Your task to perform on an android device: Open the map Image 0: 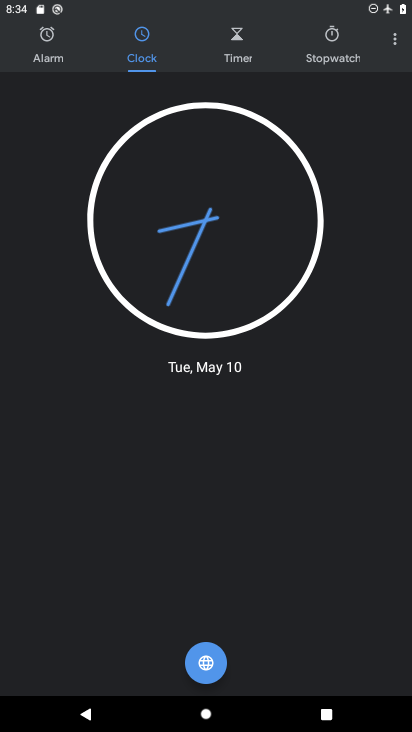
Step 0: press home button
Your task to perform on an android device: Open the map Image 1: 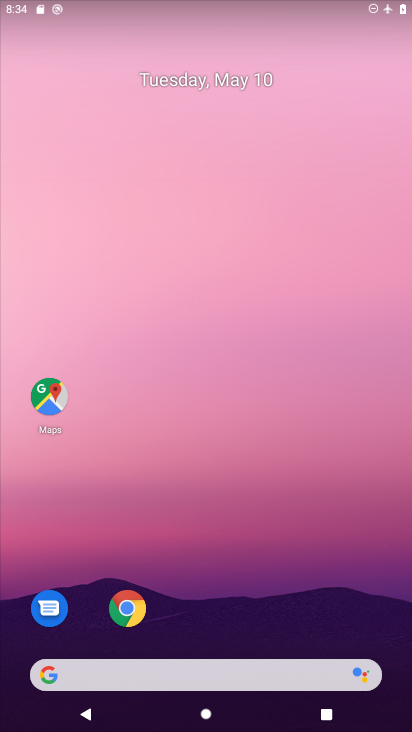
Step 1: drag from (217, 335) to (217, 290)
Your task to perform on an android device: Open the map Image 2: 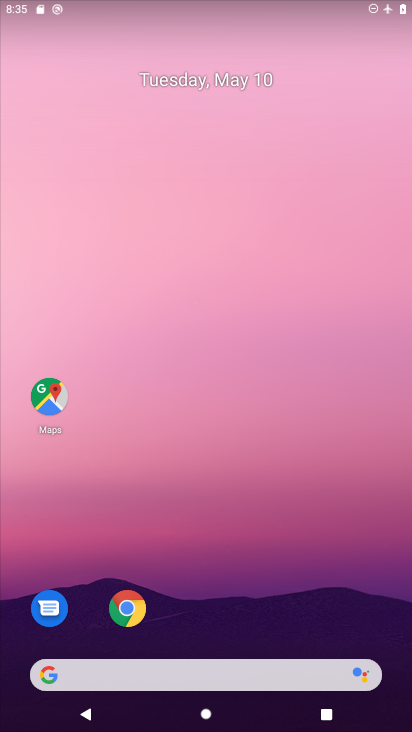
Step 2: drag from (221, 572) to (267, 251)
Your task to perform on an android device: Open the map Image 3: 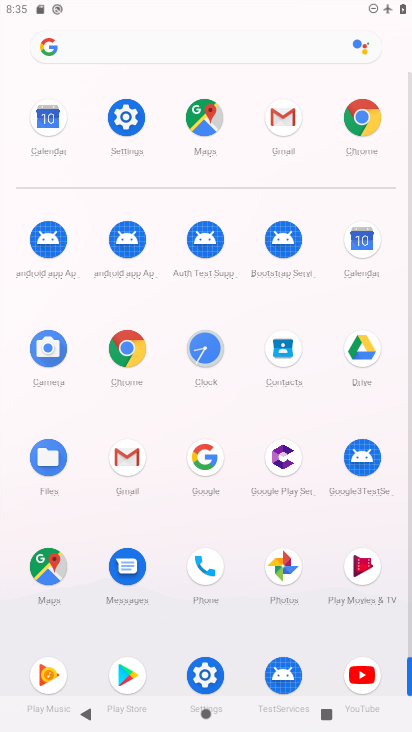
Step 3: click (203, 107)
Your task to perform on an android device: Open the map Image 4: 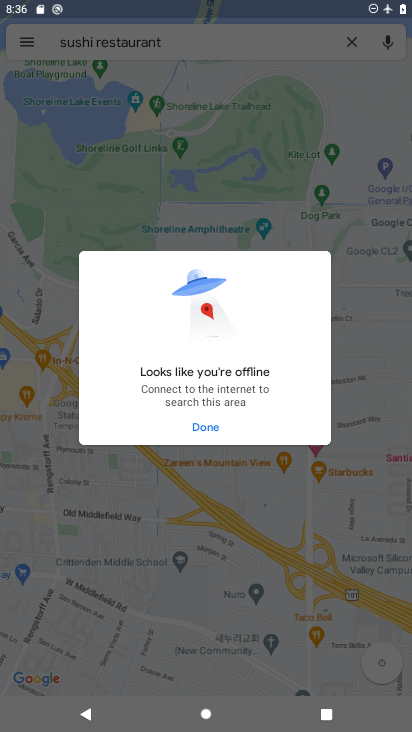
Step 4: task complete